Your task to perform on an android device: turn off location history Image 0: 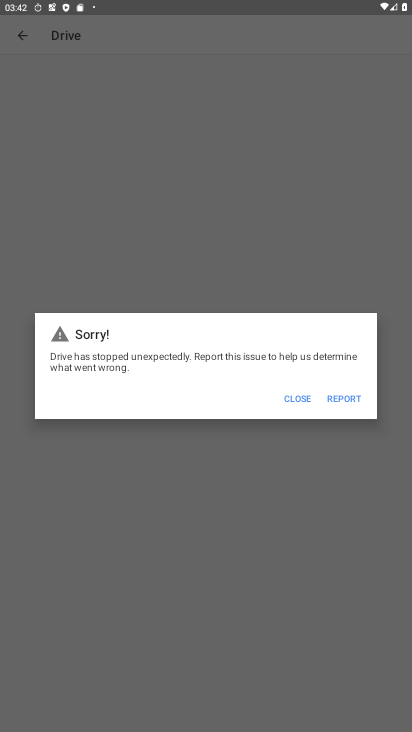
Step 0: press home button
Your task to perform on an android device: turn off location history Image 1: 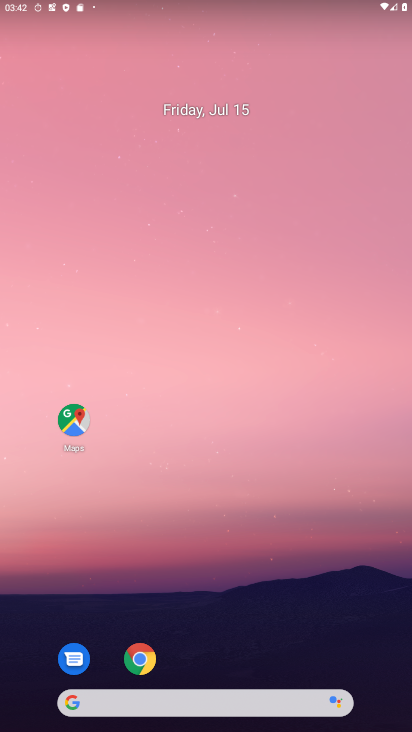
Step 1: drag from (246, 643) to (266, 170)
Your task to perform on an android device: turn off location history Image 2: 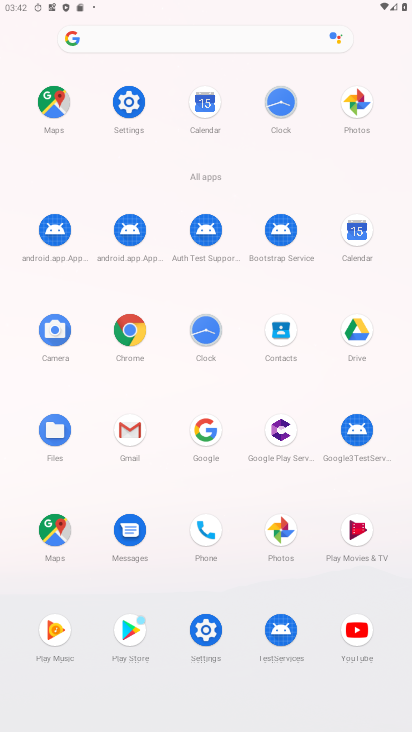
Step 2: click (125, 119)
Your task to perform on an android device: turn off location history Image 3: 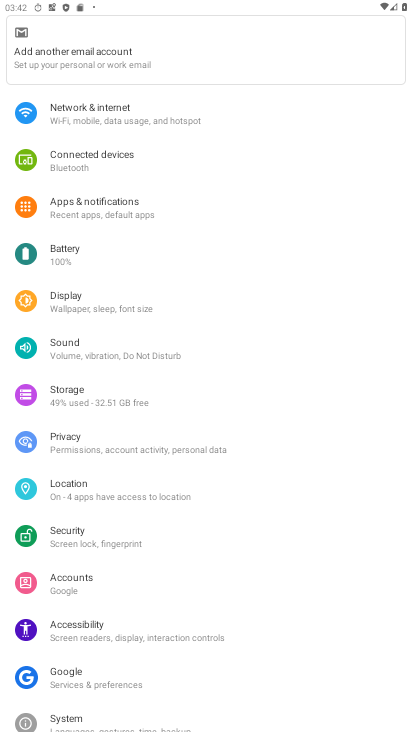
Step 3: click (83, 483)
Your task to perform on an android device: turn off location history Image 4: 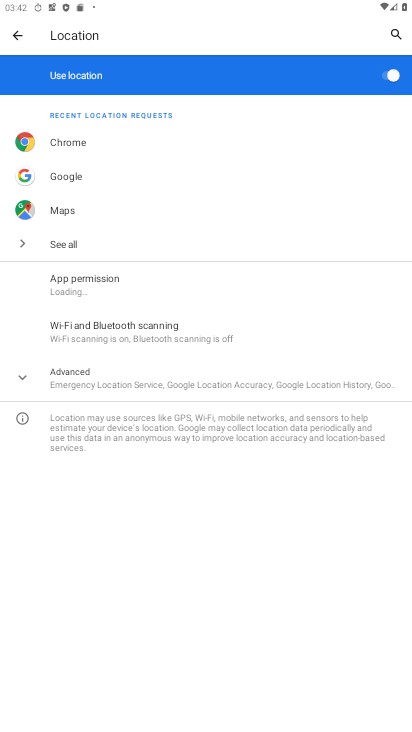
Step 4: click (75, 381)
Your task to perform on an android device: turn off location history Image 5: 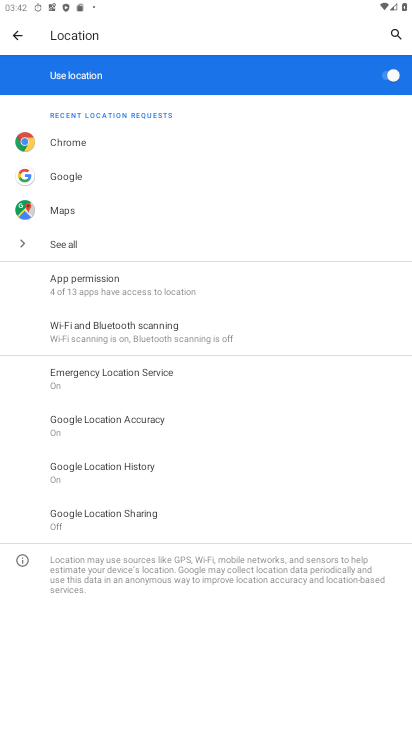
Step 5: click (128, 463)
Your task to perform on an android device: turn off location history Image 6: 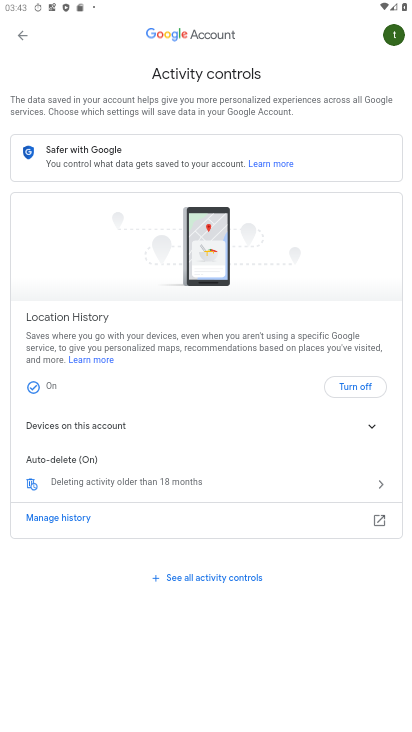
Step 6: click (352, 386)
Your task to perform on an android device: turn off location history Image 7: 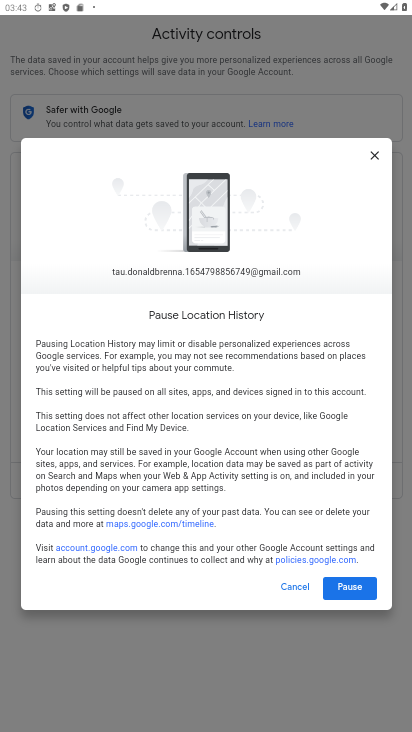
Step 7: click (336, 587)
Your task to perform on an android device: turn off location history Image 8: 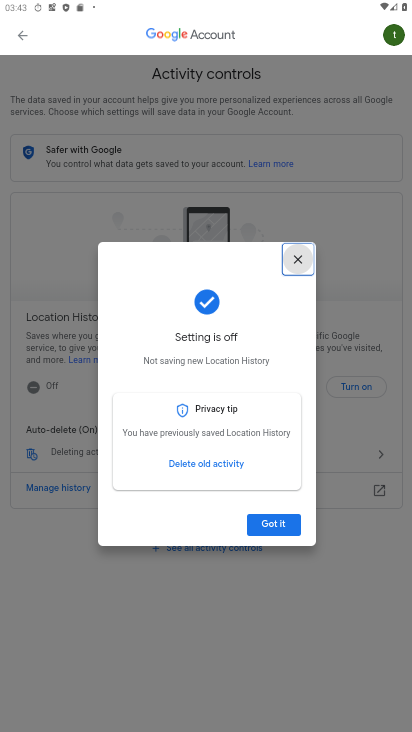
Step 8: click (281, 529)
Your task to perform on an android device: turn off location history Image 9: 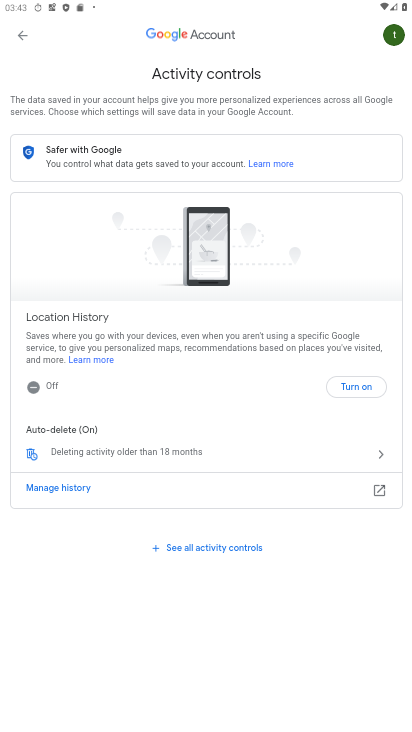
Step 9: task complete